Your task to perform on an android device: Open the calendar and show me this week's events? Image 0: 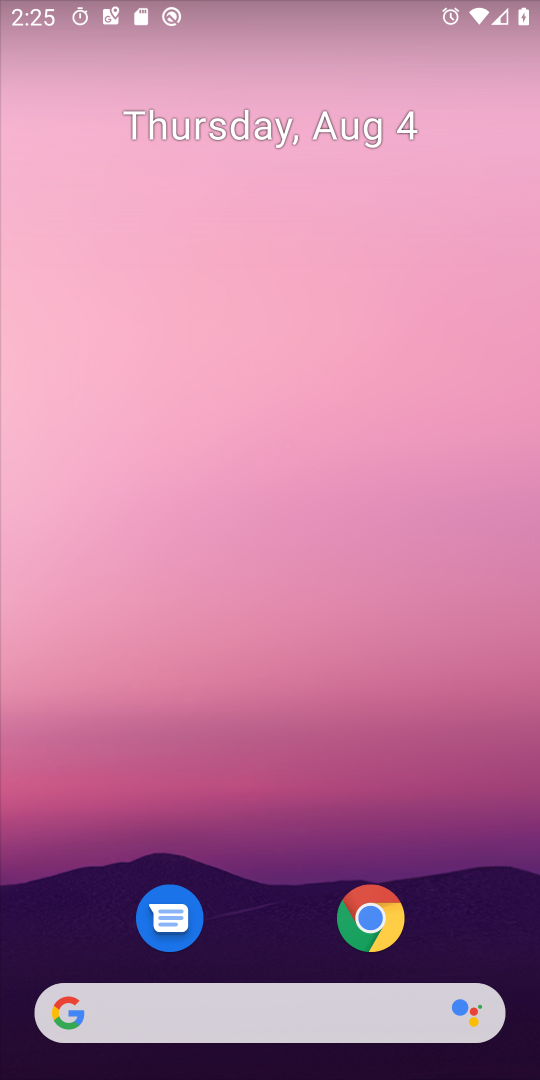
Step 0: drag from (268, 700) to (284, 263)
Your task to perform on an android device: Open the calendar and show me this week's events? Image 1: 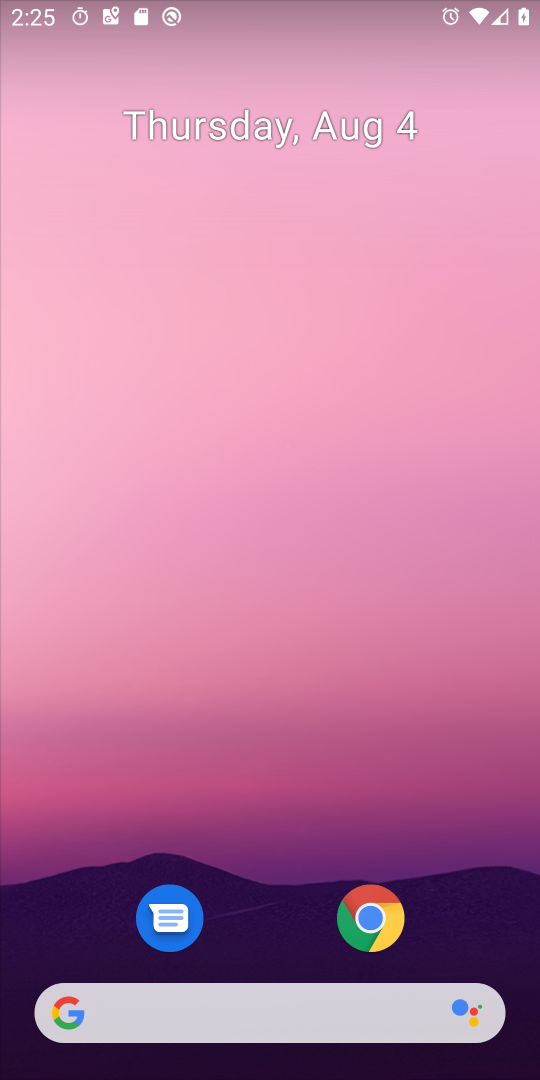
Step 1: drag from (278, 882) to (306, 333)
Your task to perform on an android device: Open the calendar and show me this week's events? Image 2: 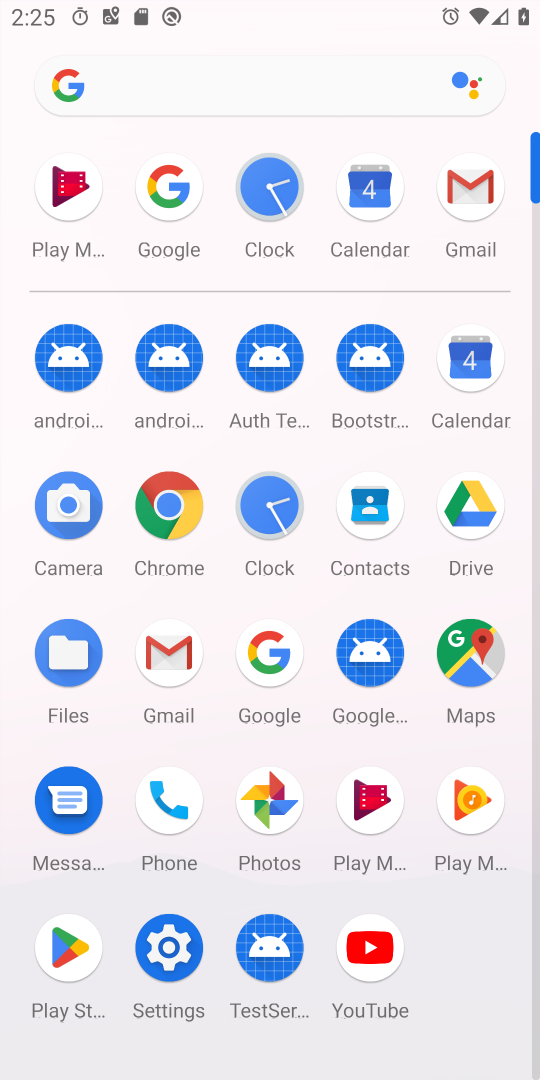
Step 2: click (463, 389)
Your task to perform on an android device: Open the calendar and show me this week's events? Image 3: 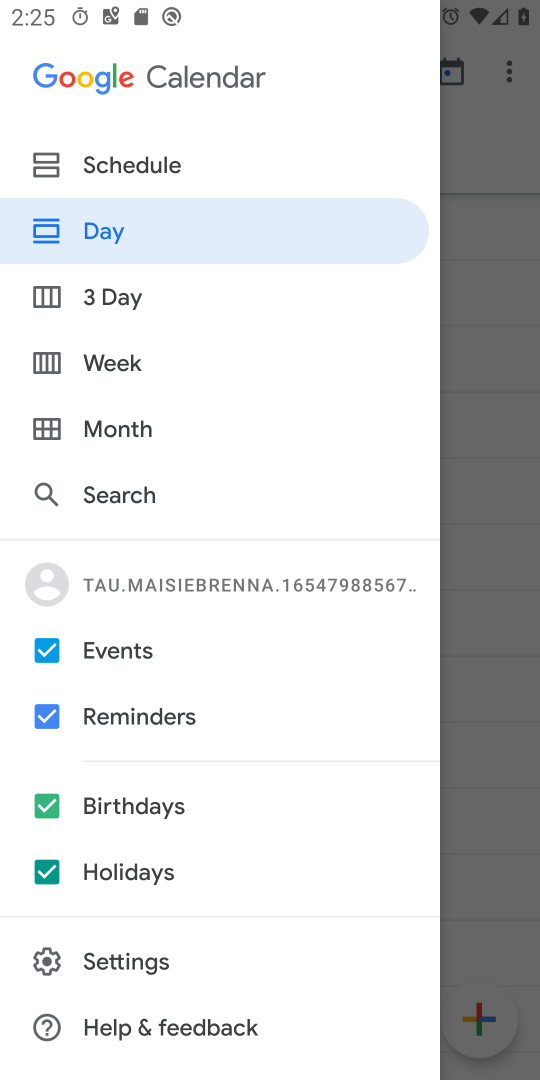
Step 3: click (208, 182)
Your task to perform on an android device: Open the calendar and show me this week's events? Image 4: 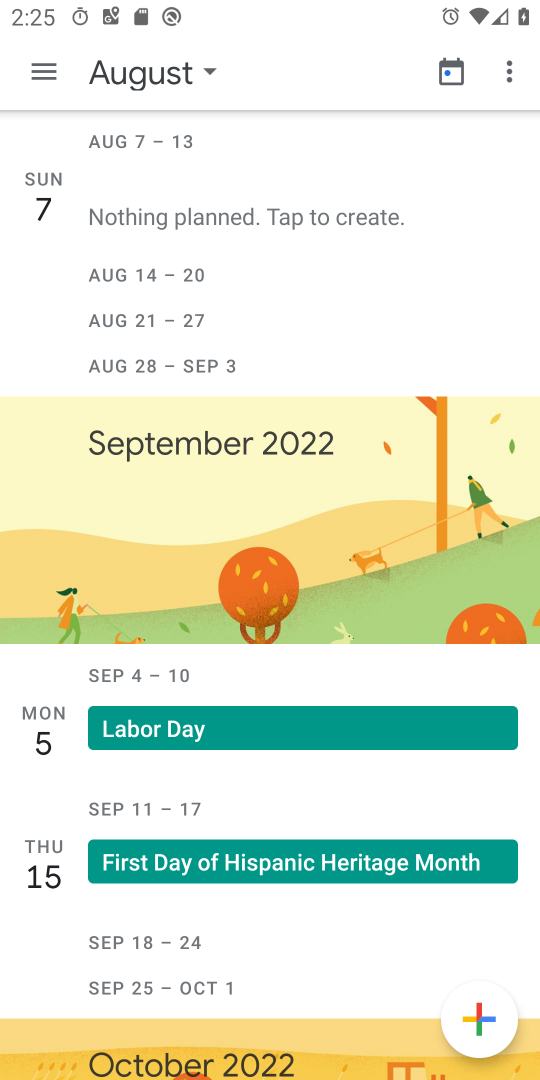
Step 4: click (186, 98)
Your task to perform on an android device: Open the calendar and show me this week's events? Image 5: 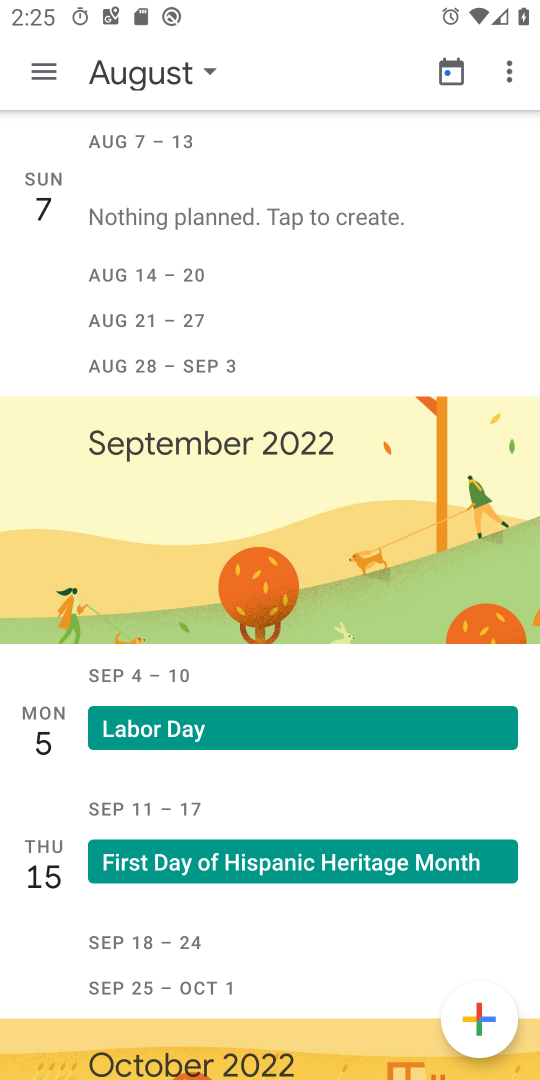
Step 5: click (208, 88)
Your task to perform on an android device: Open the calendar and show me this week's events? Image 6: 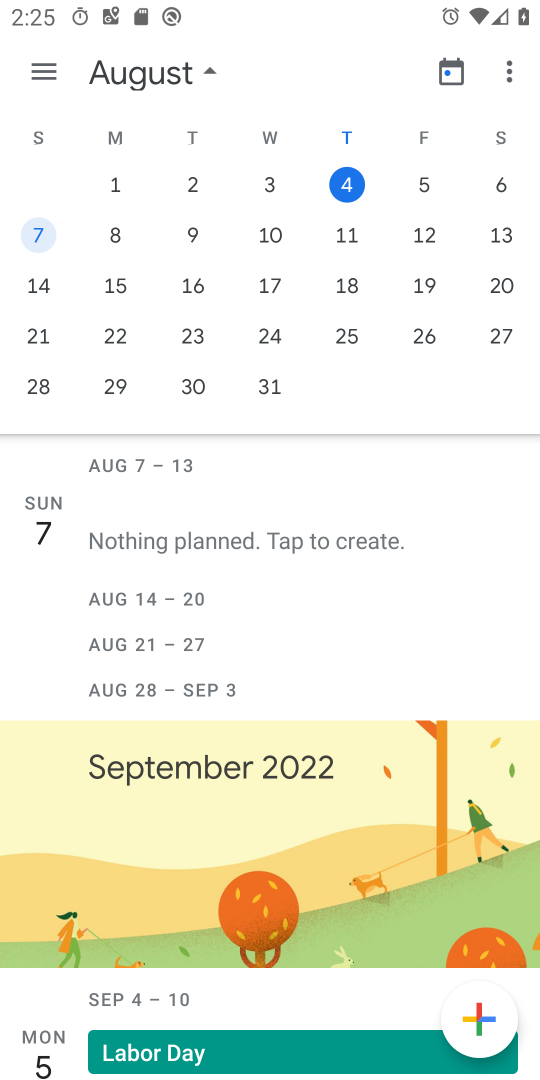
Step 6: click (414, 192)
Your task to perform on an android device: Open the calendar and show me this week's events? Image 7: 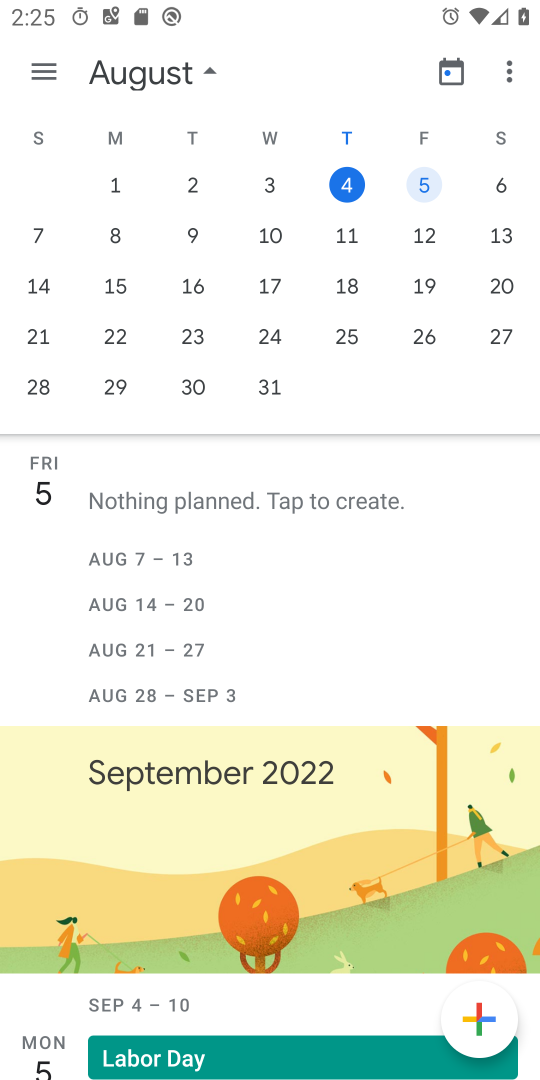
Step 7: click (490, 176)
Your task to perform on an android device: Open the calendar and show me this week's events? Image 8: 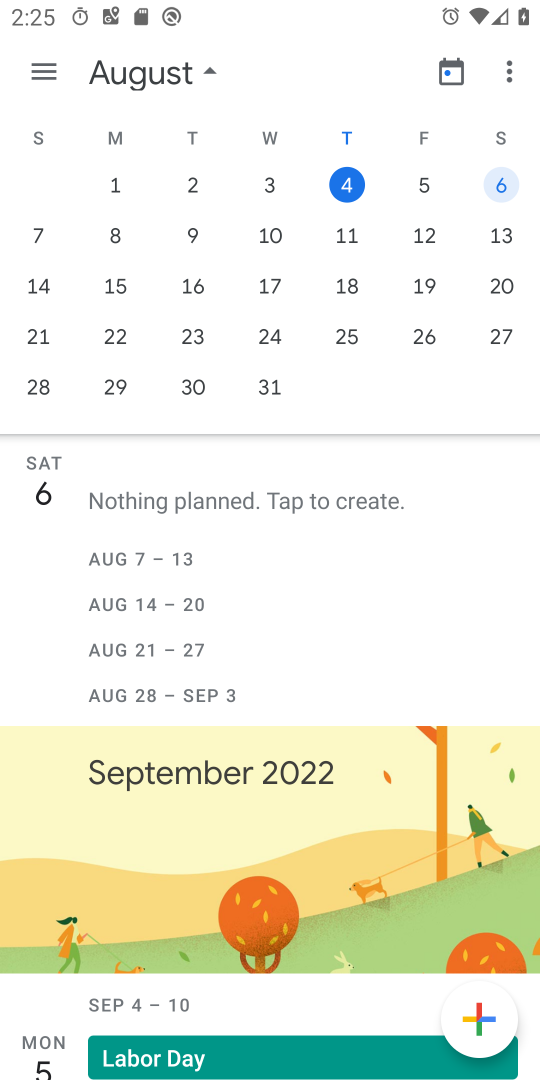
Step 8: task complete